Your task to perform on an android device: turn on bluetooth scan Image 0: 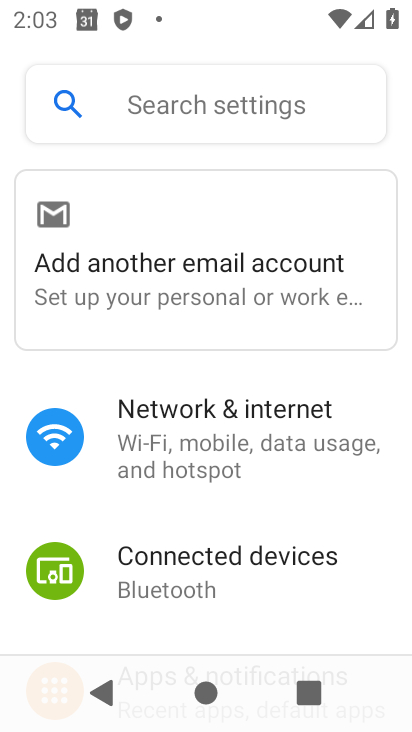
Step 0: drag from (296, 591) to (250, 90)
Your task to perform on an android device: turn on bluetooth scan Image 1: 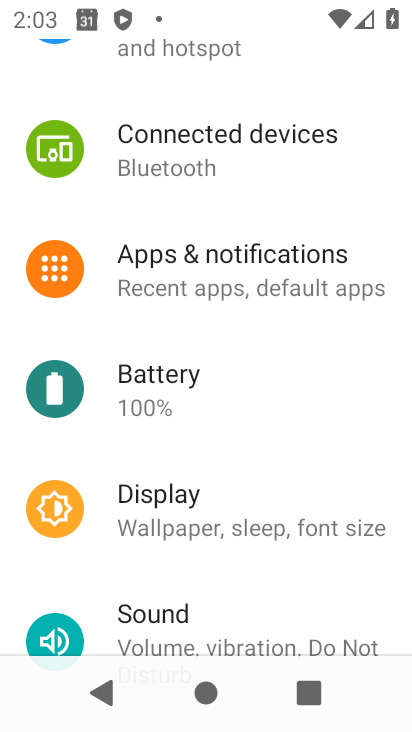
Step 1: drag from (206, 577) to (195, 136)
Your task to perform on an android device: turn on bluetooth scan Image 2: 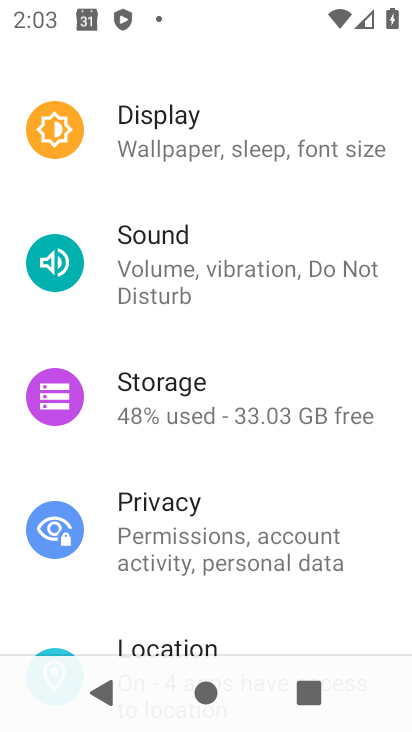
Step 2: drag from (248, 587) to (276, 251)
Your task to perform on an android device: turn on bluetooth scan Image 3: 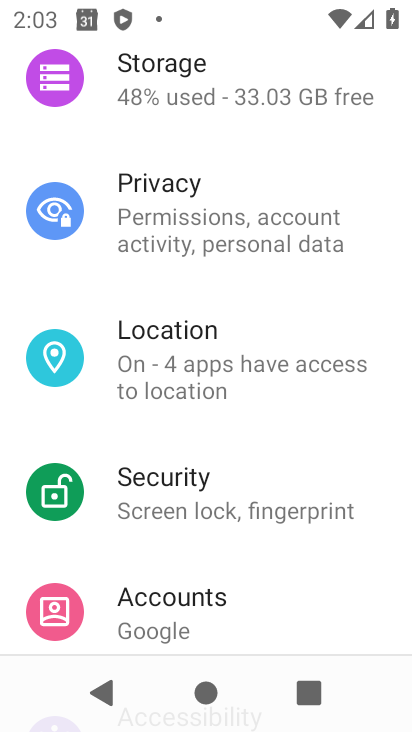
Step 3: click (200, 362)
Your task to perform on an android device: turn on bluetooth scan Image 4: 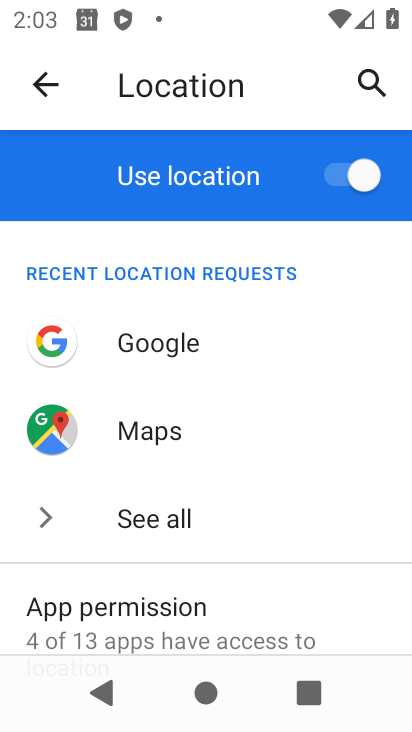
Step 4: drag from (225, 595) to (214, 209)
Your task to perform on an android device: turn on bluetooth scan Image 5: 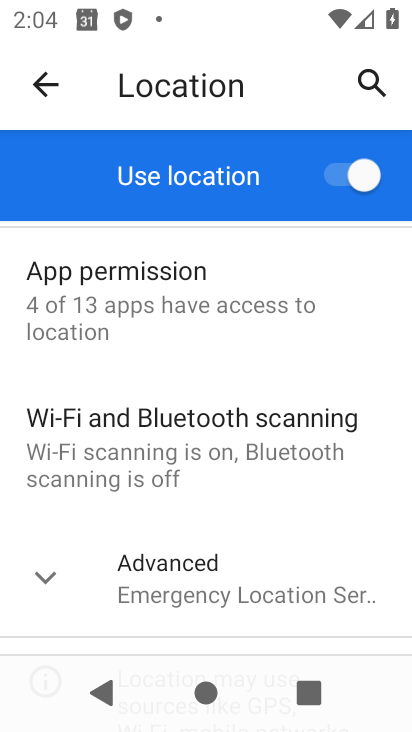
Step 5: drag from (235, 571) to (226, 222)
Your task to perform on an android device: turn on bluetooth scan Image 6: 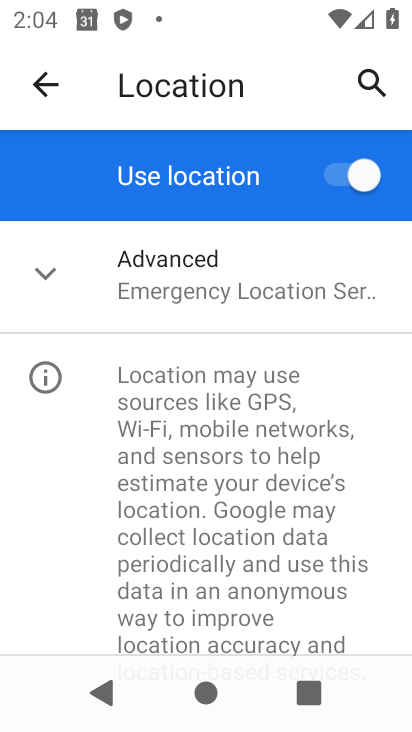
Step 6: click (128, 255)
Your task to perform on an android device: turn on bluetooth scan Image 7: 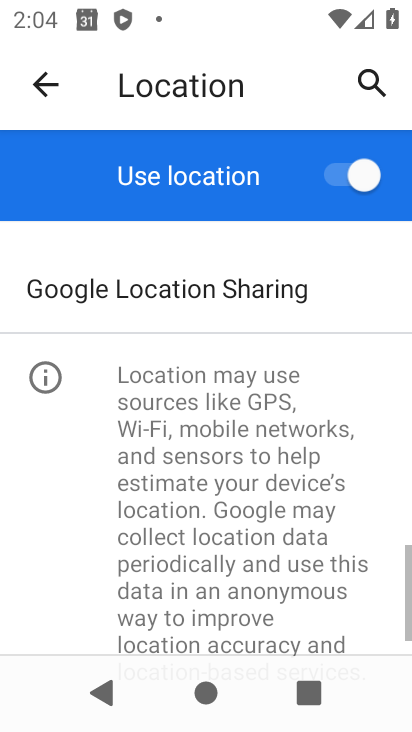
Step 7: drag from (232, 568) to (232, 110)
Your task to perform on an android device: turn on bluetooth scan Image 8: 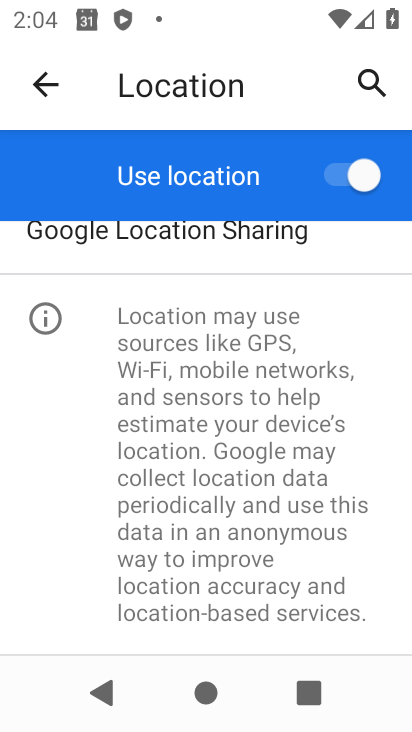
Step 8: drag from (238, 522) to (274, 95)
Your task to perform on an android device: turn on bluetooth scan Image 9: 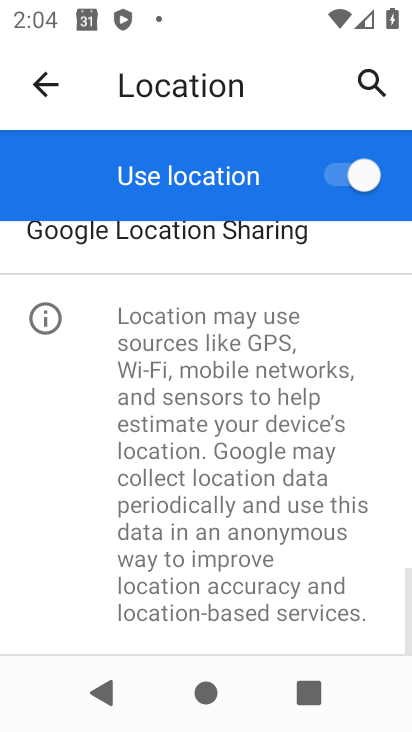
Step 9: drag from (206, 367) to (230, 731)
Your task to perform on an android device: turn on bluetooth scan Image 10: 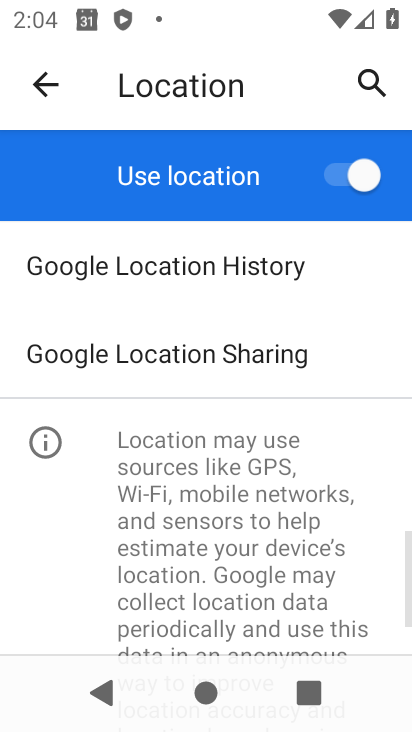
Step 10: drag from (211, 329) to (288, 694)
Your task to perform on an android device: turn on bluetooth scan Image 11: 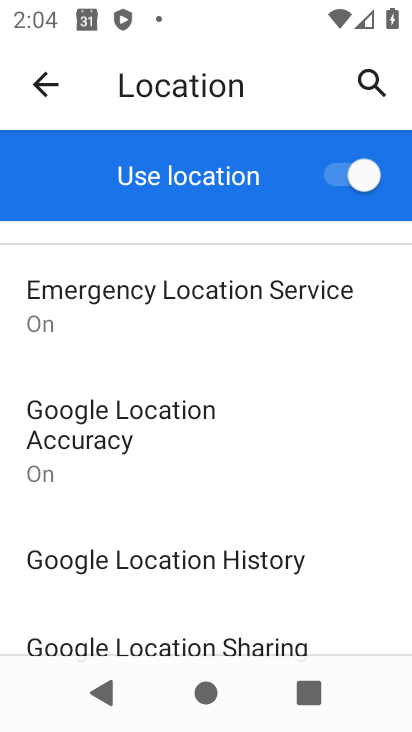
Step 11: drag from (234, 321) to (293, 686)
Your task to perform on an android device: turn on bluetooth scan Image 12: 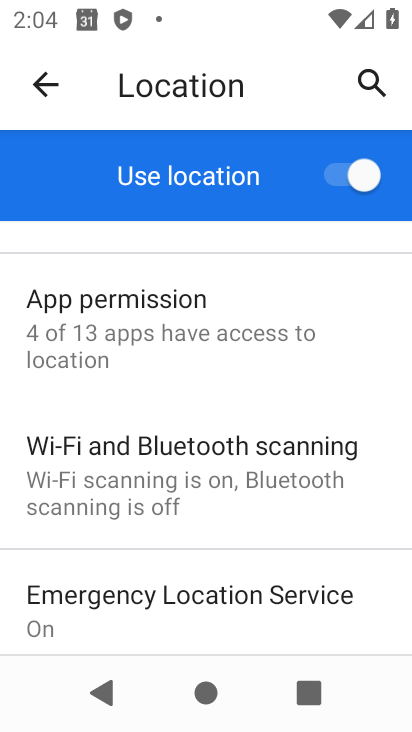
Step 12: click (256, 515)
Your task to perform on an android device: turn on bluetooth scan Image 13: 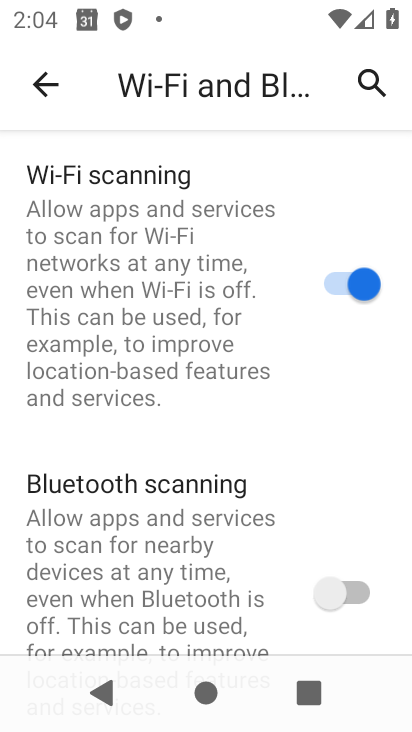
Step 13: click (337, 585)
Your task to perform on an android device: turn on bluetooth scan Image 14: 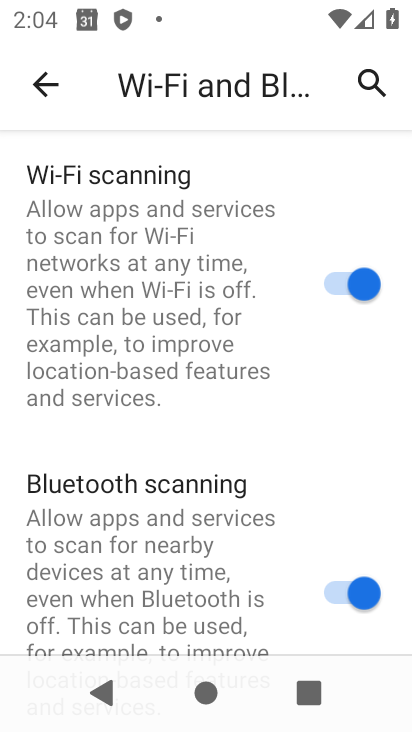
Step 14: task complete